Your task to perform on an android device: remove spam from my inbox in the gmail app Image 0: 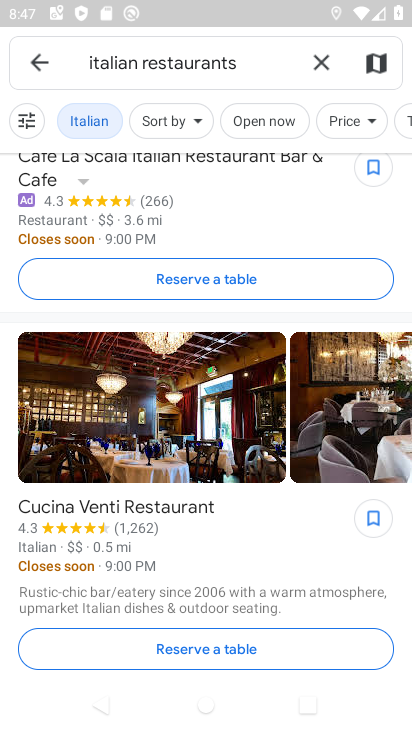
Step 0: press home button
Your task to perform on an android device: remove spam from my inbox in the gmail app Image 1: 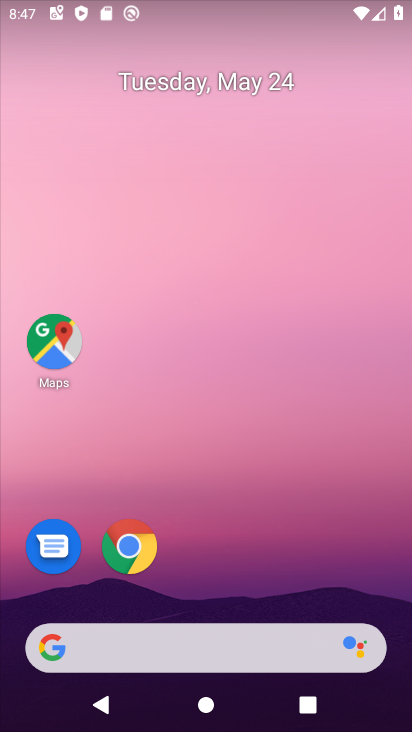
Step 1: drag from (141, 627) to (218, 242)
Your task to perform on an android device: remove spam from my inbox in the gmail app Image 2: 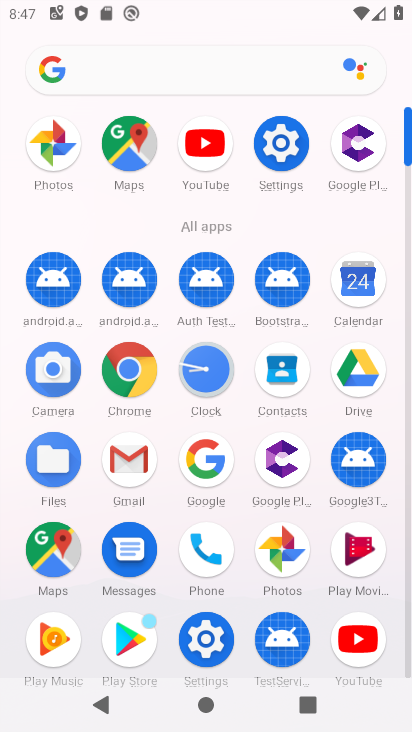
Step 2: click (129, 463)
Your task to perform on an android device: remove spam from my inbox in the gmail app Image 3: 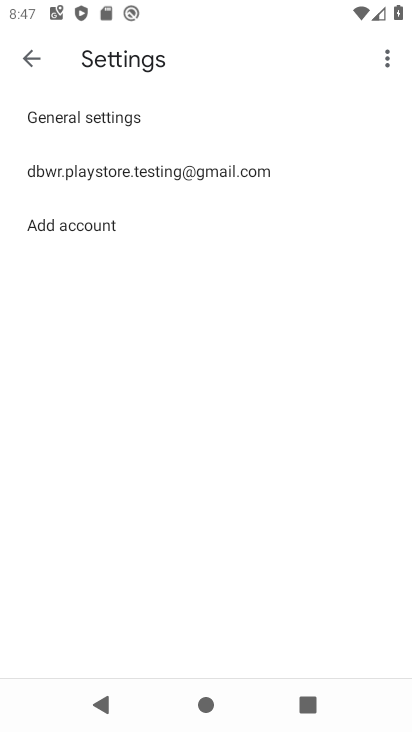
Step 3: click (30, 57)
Your task to perform on an android device: remove spam from my inbox in the gmail app Image 4: 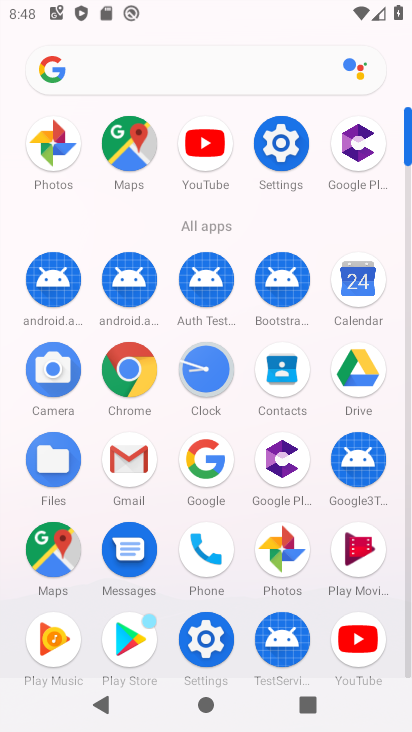
Step 4: click (120, 472)
Your task to perform on an android device: remove spam from my inbox in the gmail app Image 5: 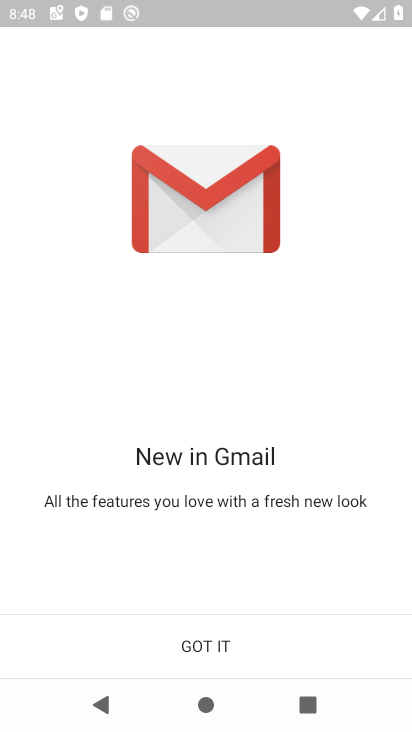
Step 5: click (201, 652)
Your task to perform on an android device: remove spam from my inbox in the gmail app Image 6: 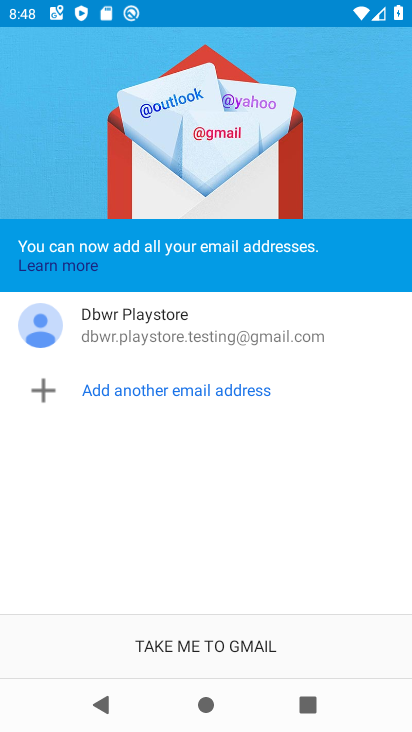
Step 6: click (198, 652)
Your task to perform on an android device: remove spam from my inbox in the gmail app Image 7: 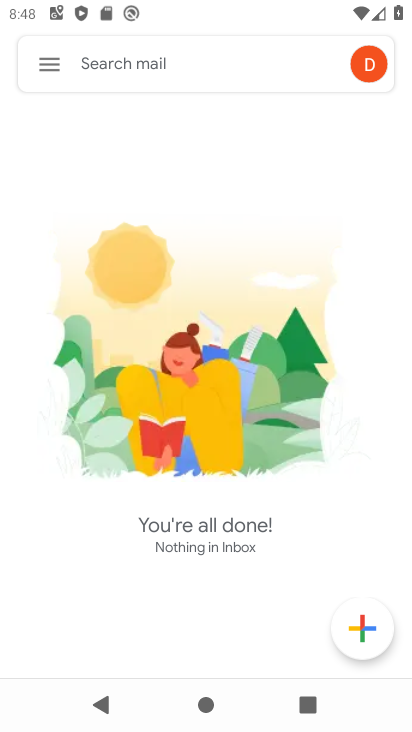
Step 7: click (48, 66)
Your task to perform on an android device: remove spam from my inbox in the gmail app Image 8: 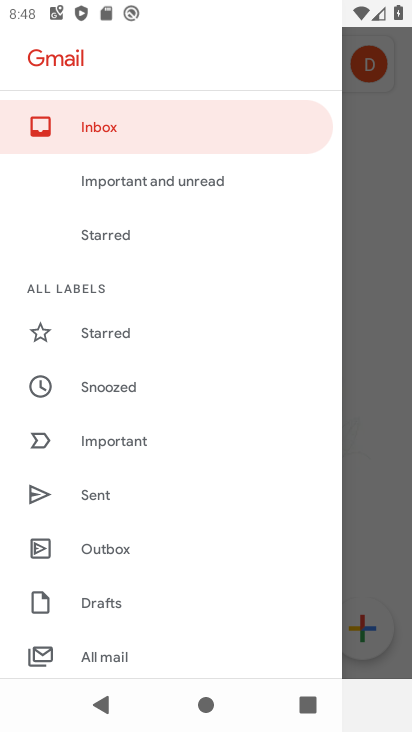
Step 8: drag from (120, 630) to (112, 323)
Your task to perform on an android device: remove spam from my inbox in the gmail app Image 9: 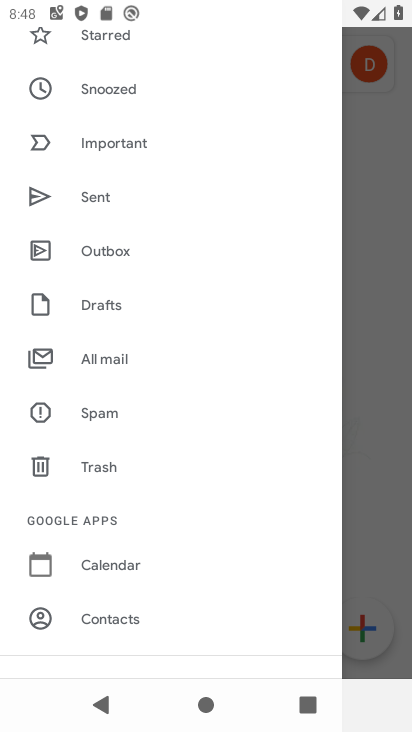
Step 9: click (83, 407)
Your task to perform on an android device: remove spam from my inbox in the gmail app Image 10: 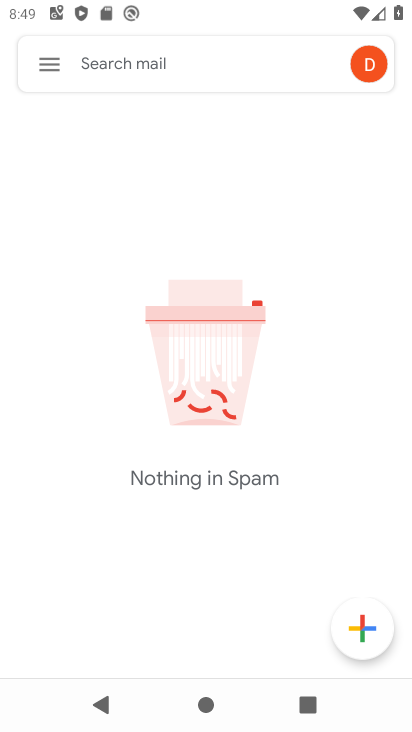
Step 10: task complete